Your task to perform on an android device: check out phone information Image 0: 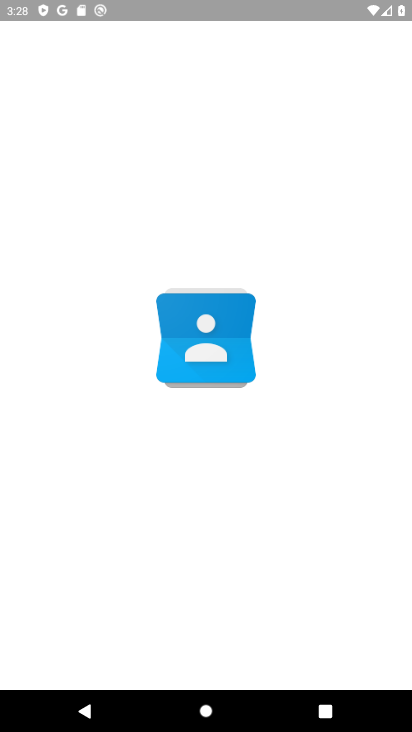
Step 0: drag from (184, 625) to (240, 28)
Your task to perform on an android device: check out phone information Image 1: 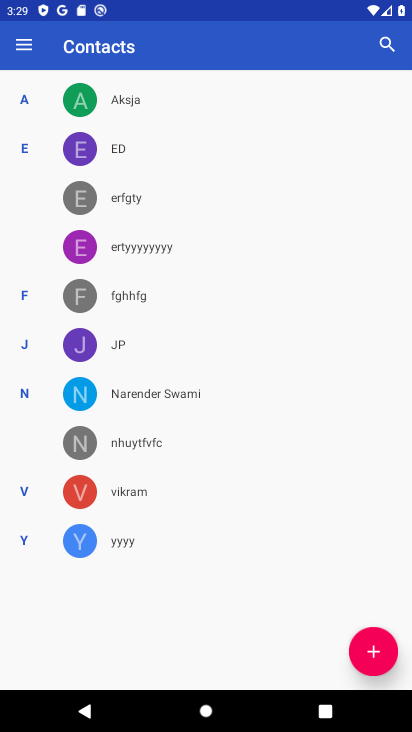
Step 1: task complete